Your task to perform on an android device: Search for seafood restaurants on Google Maps Image 0: 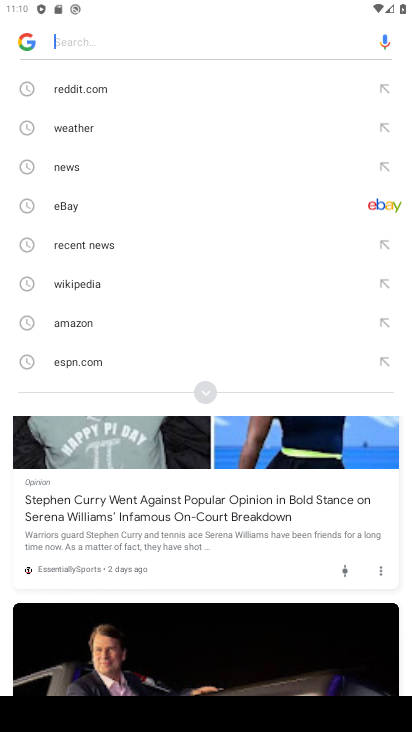
Step 0: press home button
Your task to perform on an android device: Search for seafood restaurants on Google Maps Image 1: 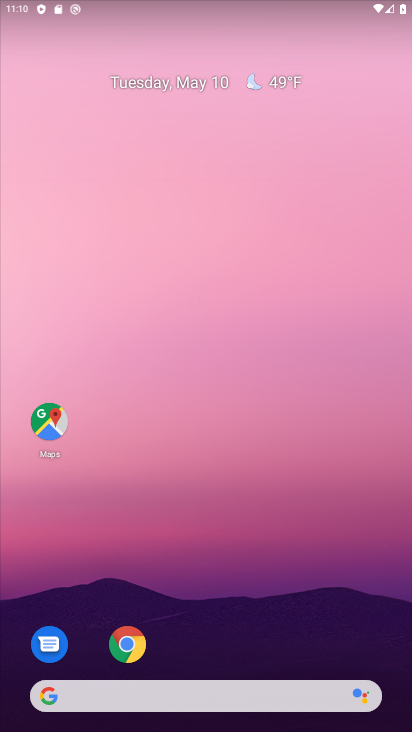
Step 1: click (59, 432)
Your task to perform on an android device: Search for seafood restaurants on Google Maps Image 2: 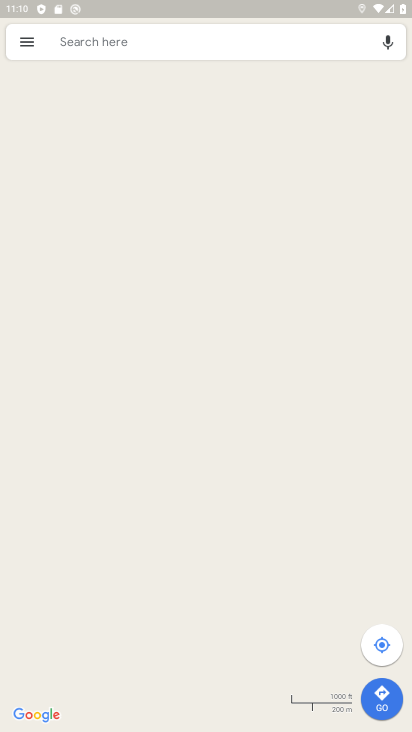
Step 2: click (155, 48)
Your task to perform on an android device: Search for seafood restaurants on Google Maps Image 3: 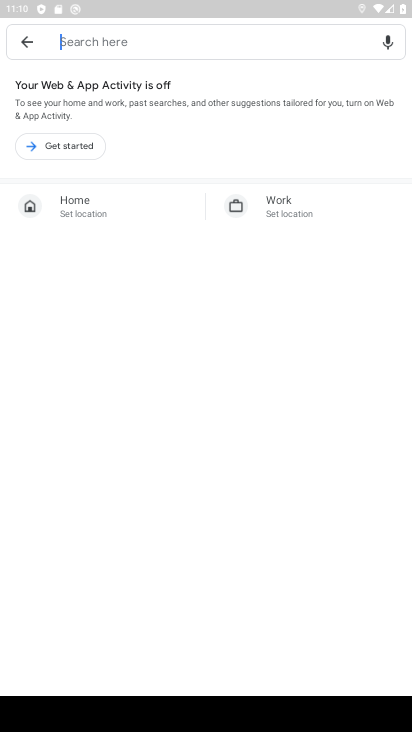
Step 3: type "seafood restaurants"
Your task to perform on an android device: Search for seafood restaurants on Google Maps Image 4: 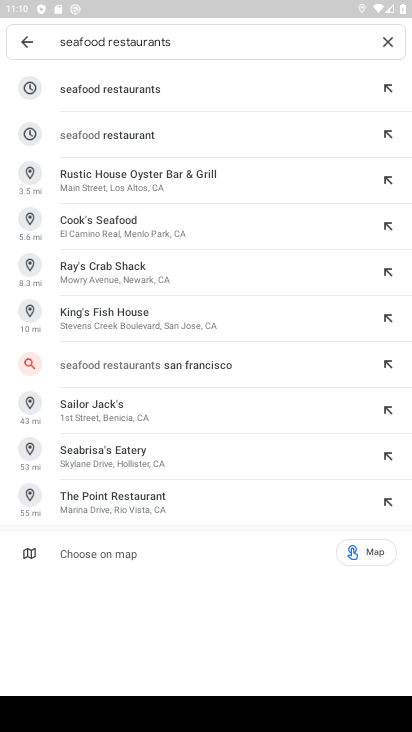
Step 4: click (153, 85)
Your task to perform on an android device: Search for seafood restaurants on Google Maps Image 5: 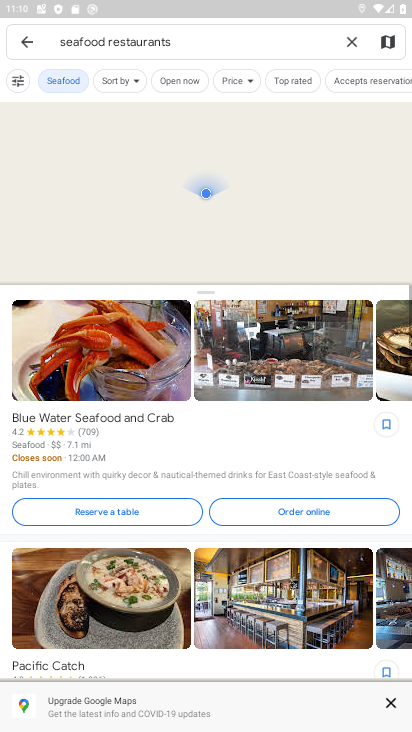
Step 5: task complete